Your task to perform on an android device: Open notification settings Image 0: 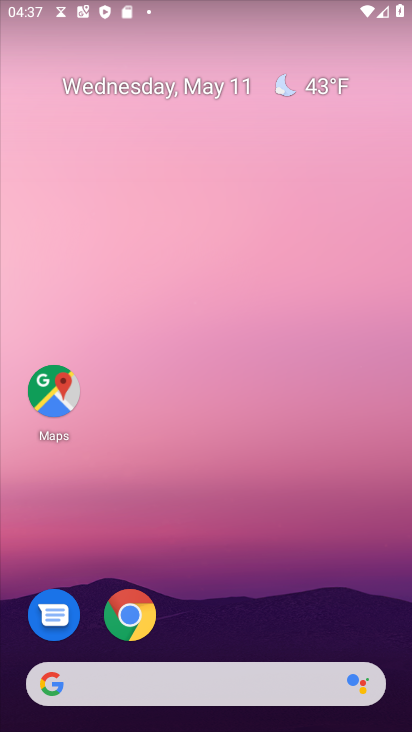
Step 0: drag from (233, 528) to (194, 43)
Your task to perform on an android device: Open notification settings Image 1: 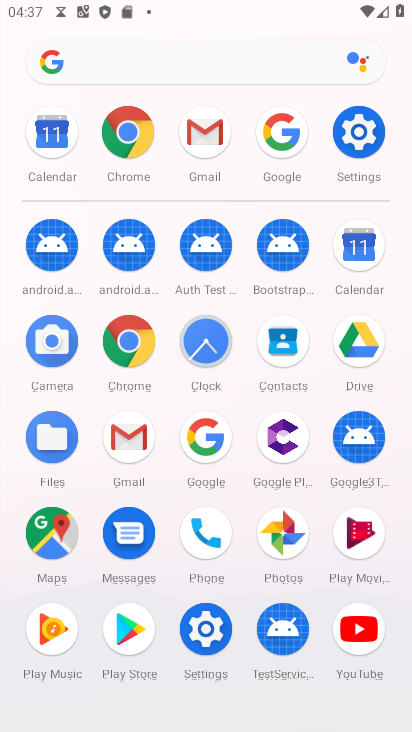
Step 1: click (205, 626)
Your task to perform on an android device: Open notification settings Image 2: 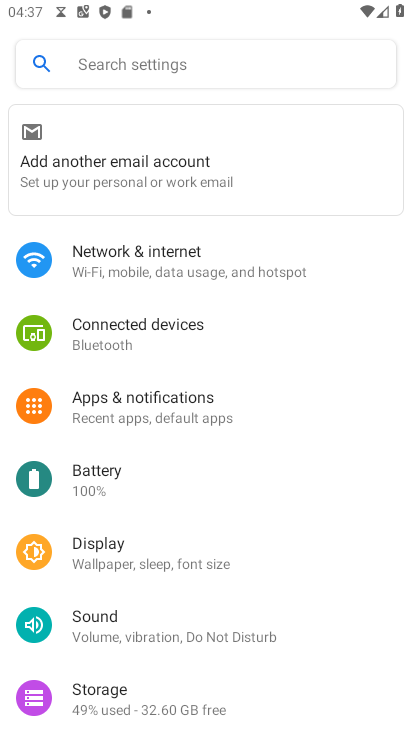
Step 2: click (145, 395)
Your task to perform on an android device: Open notification settings Image 3: 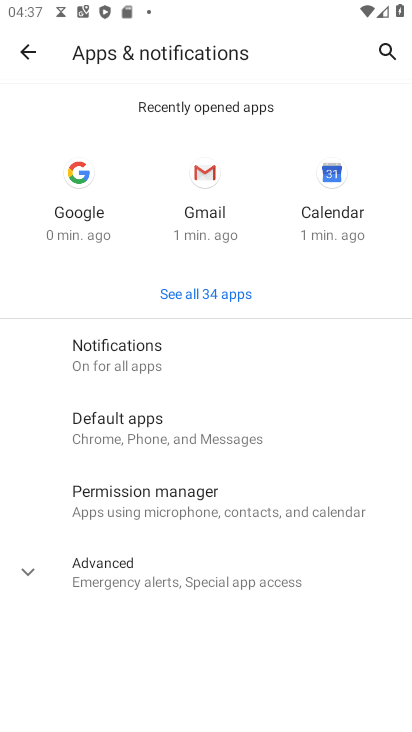
Step 3: click (25, 566)
Your task to perform on an android device: Open notification settings Image 4: 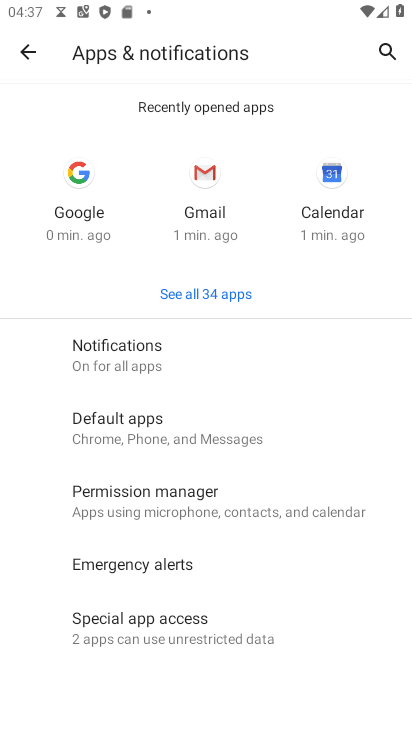
Step 4: drag from (322, 625) to (310, 186)
Your task to perform on an android device: Open notification settings Image 5: 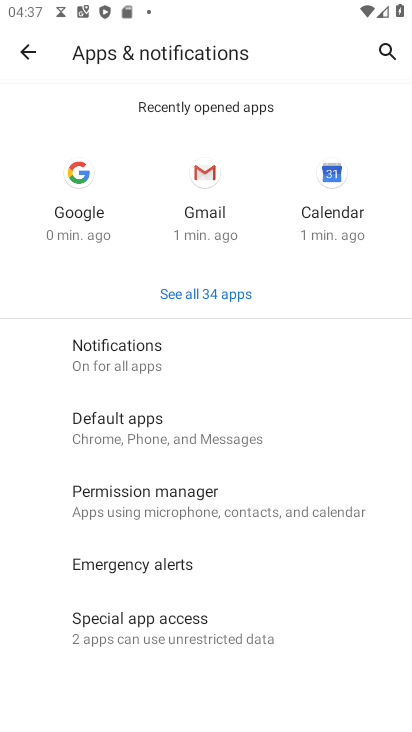
Step 5: click (178, 357)
Your task to perform on an android device: Open notification settings Image 6: 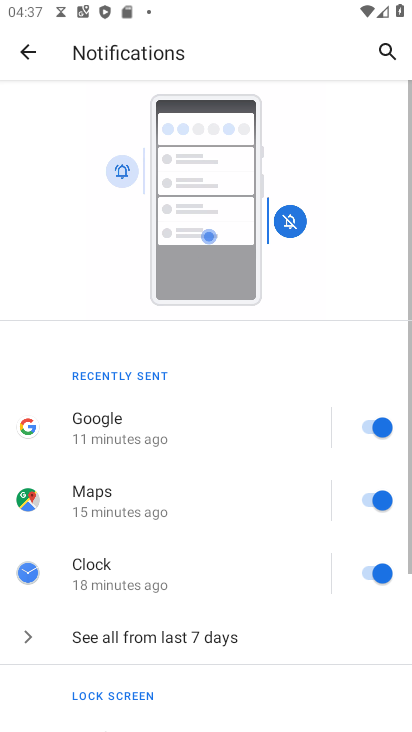
Step 6: drag from (221, 583) to (258, 116)
Your task to perform on an android device: Open notification settings Image 7: 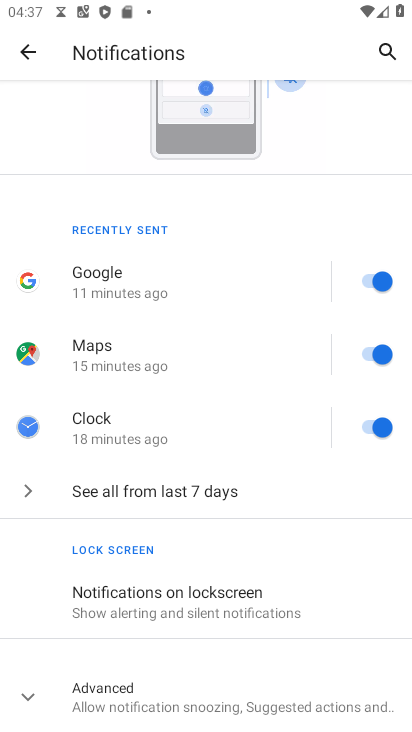
Step 7: click (56, 688)
Your task to perform on an android device: Open notification settings Image 8: 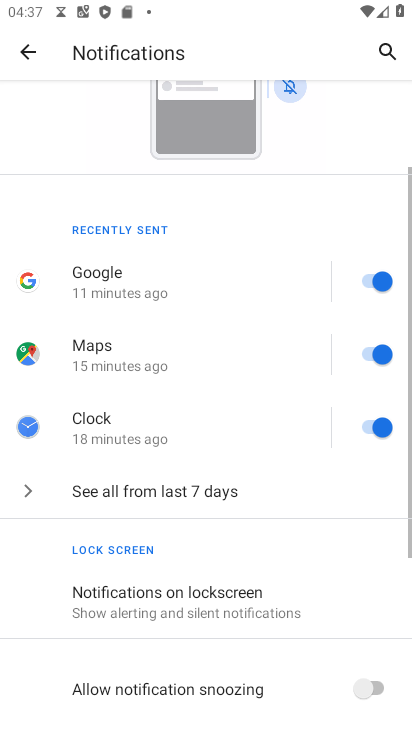
Step 8: task complete